Your task to perform on an android device: add a contact in the contacts app Image 0: 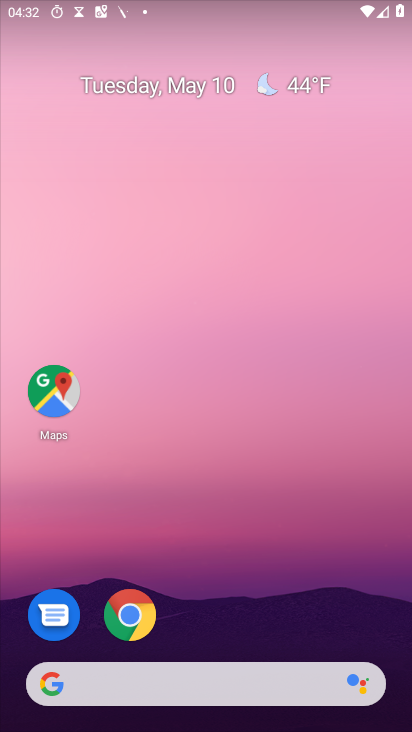
Step 0: drag from (325, 669) to (392, 0)
Your task to perform on an android device: add a contact in the contacts app Image 1: 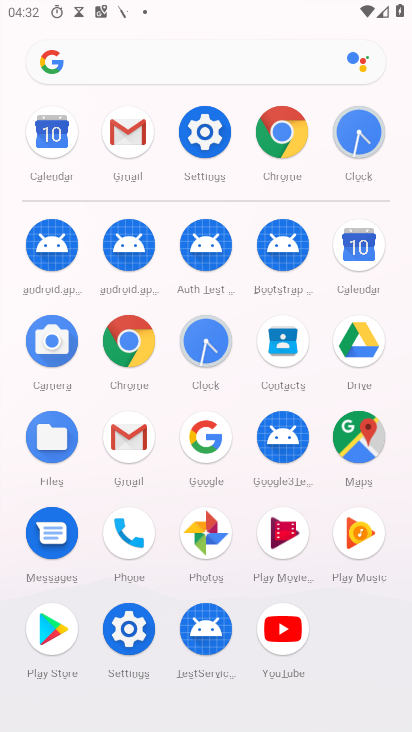
Step 1: click (279, 349)
Your task to perform on an android device: add a contact in the contacts app Image 2: 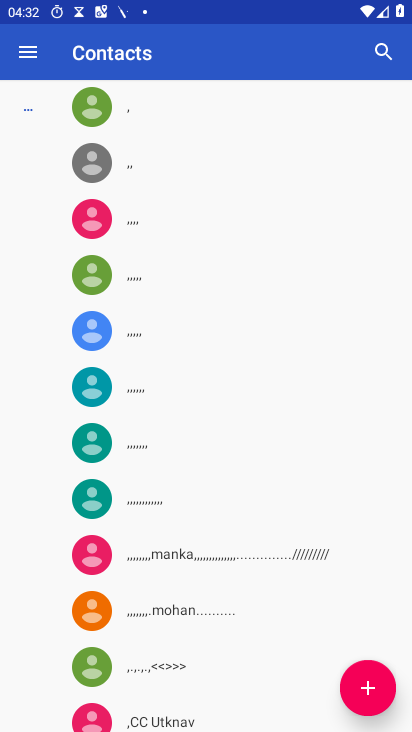
Step 2: click (362, 690)
Your task to perform on an android device: add a contact in the contacts app Image 3: 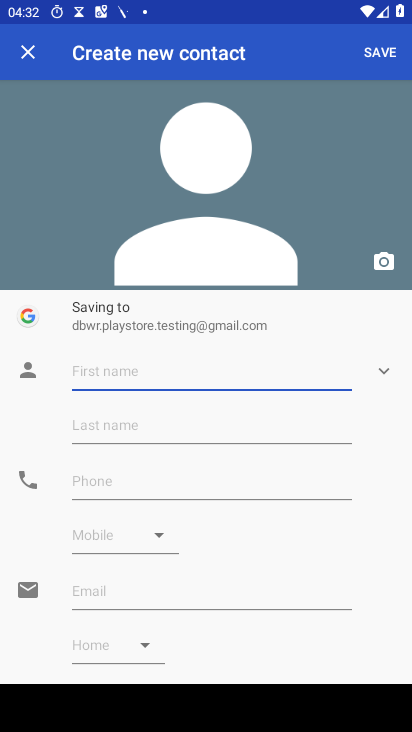
Step 3: type "hjvjjgjjjjjjhd"
Your task to perform on an android device: add a contact in the contacts app Image 4: 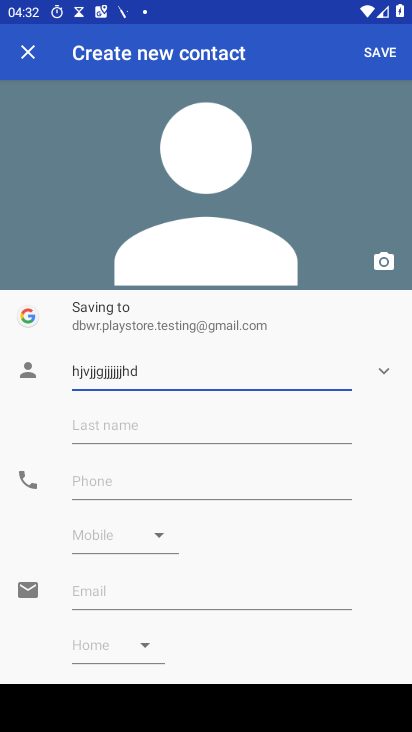
Step 4: click (138, 477)
Your task to perform on an android device: add a contact in the contacts app Image 5: 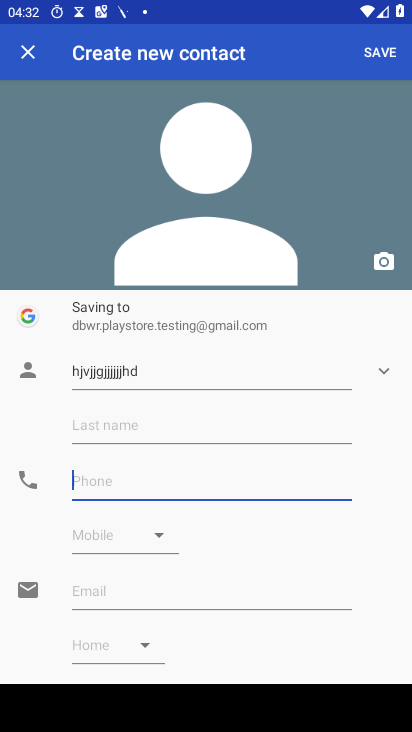
Step 5: type "9897867898"
Your task to perform on an android device: add a contact in the contacts app Image 6: 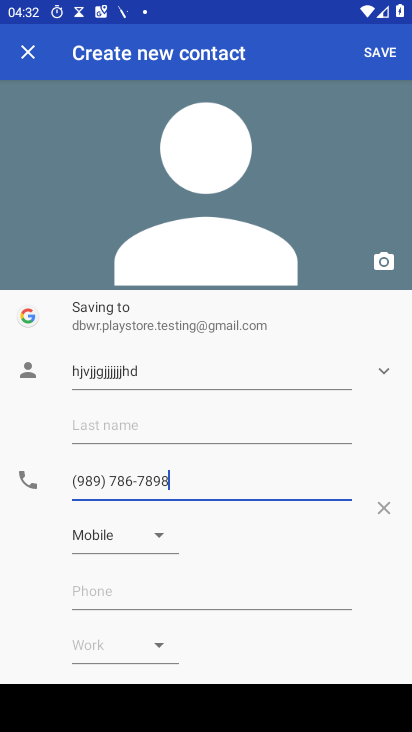
Step 6: click (378, 57)
Your task to perform on an android device: add a contact in the contacts app Image 7: 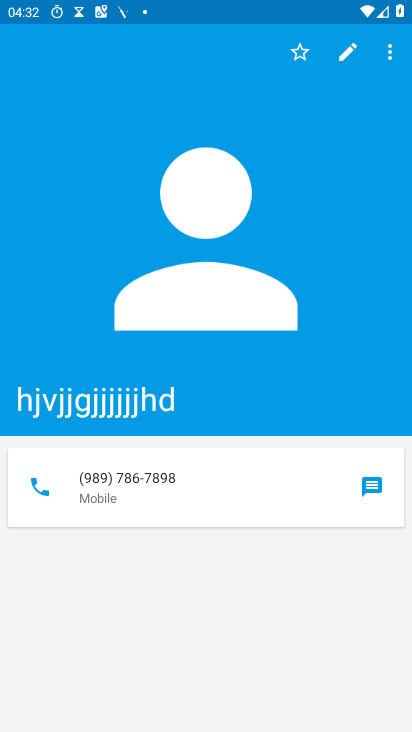
Step 7: task complete